Your task to perform on an android device: turn on airplane mode Image 0: 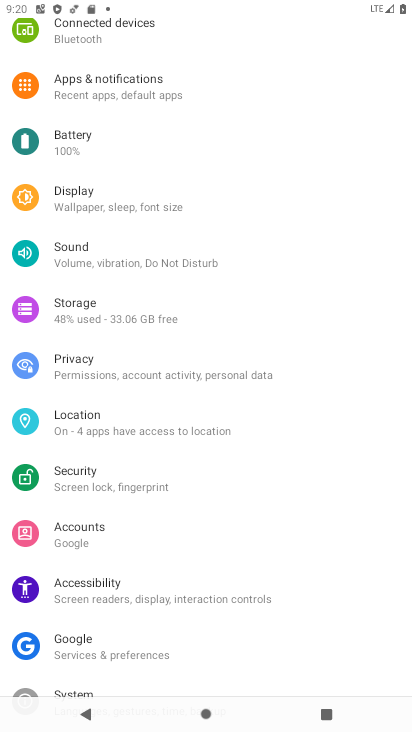
Step 0: drag from (155, 79) to (150, 208)
Your task to perform on an android device: turn on airplane mode Image 1: 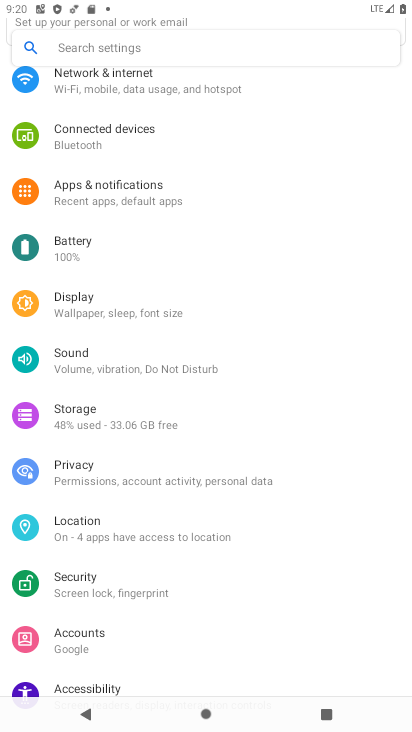
Step 1: drag from (142, 112) to (150, 223)
Your task to perform on an android device: turn on airplane mode Image 2: 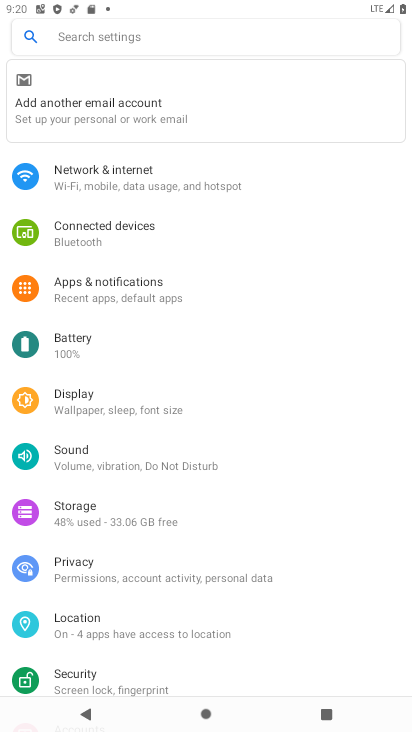
Step 2: click (170, 181)
Your task to perform on an android device: turn on airplane mode Image 3: 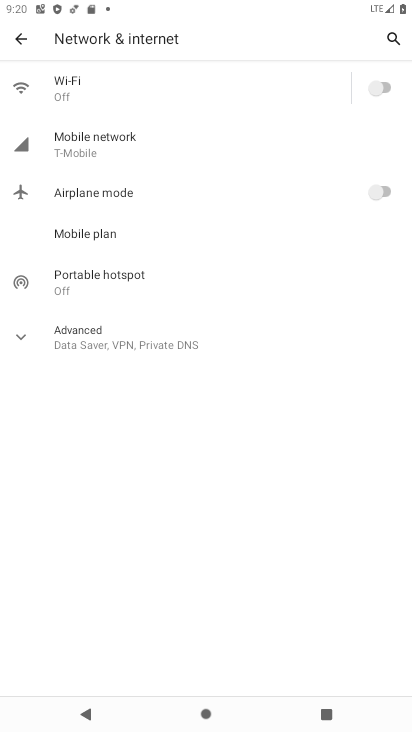
Step 3: click (396, 189)
Your task to perform on an android device: turn on airplane mode Image 4: 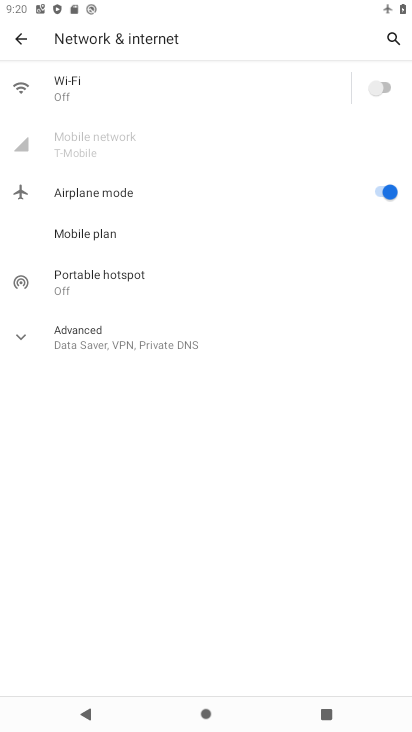
Step 4: task complete